Your task to perform on an android device: install app "Fetch Rewards" Image 0: 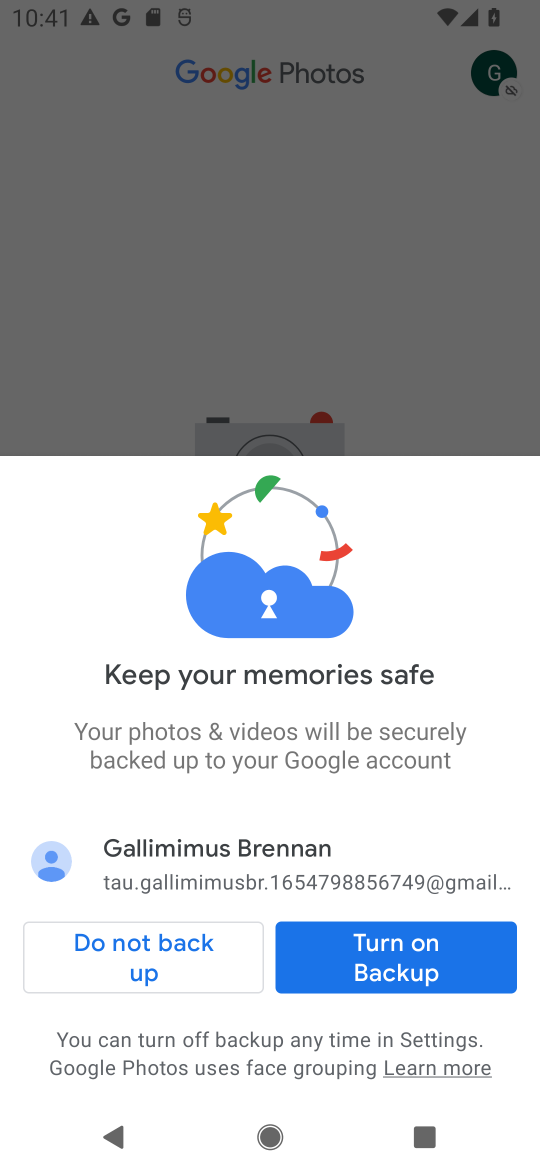
Step 0: press home button
Your task to perform on an android device: install app "Fetch Rewards" Image 1: 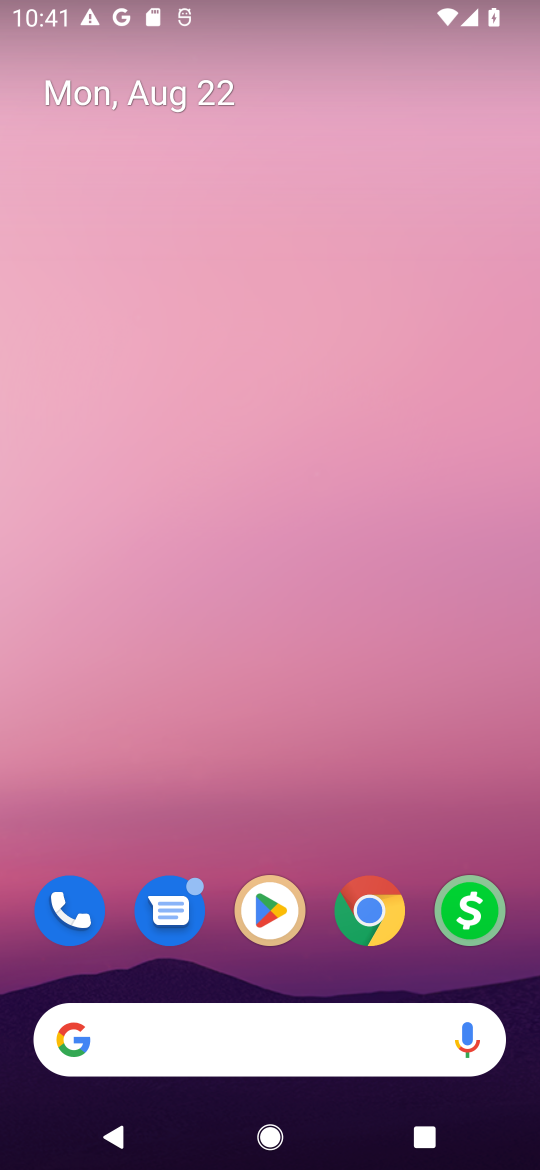
Step 1: click (276, 909)
Your task to perform on an android device: install app "Fetch Rewards" Image 2: 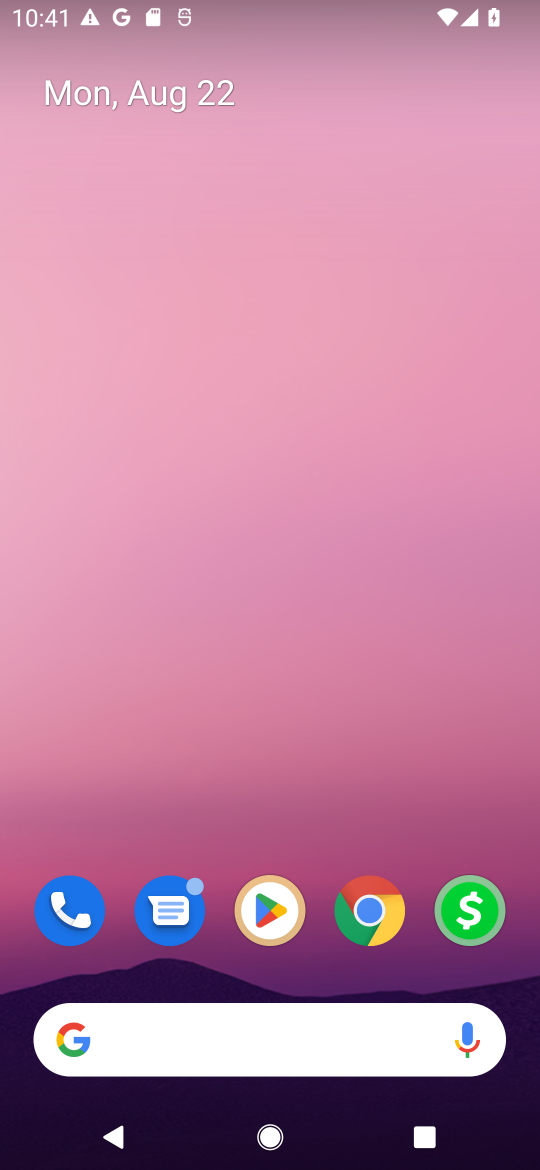
Step 2: click (268, 904)
Your task to perform on an android device: install app "Fetch Rewards" Image 3: 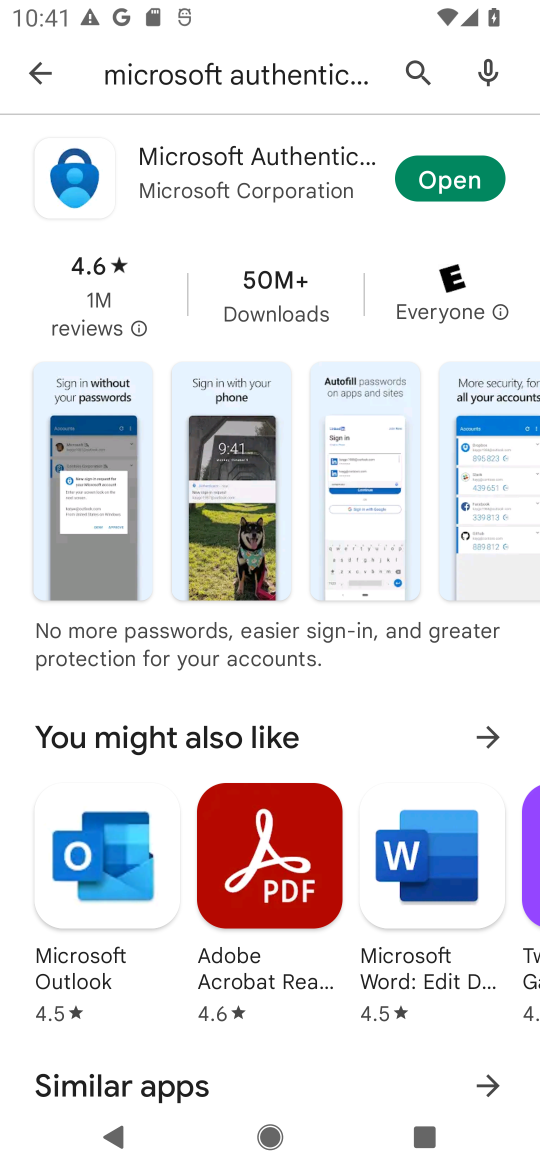
Step 3: click (416, 66)
Your task to perform on an android device: install app "Fetch Rewards" Image 4: 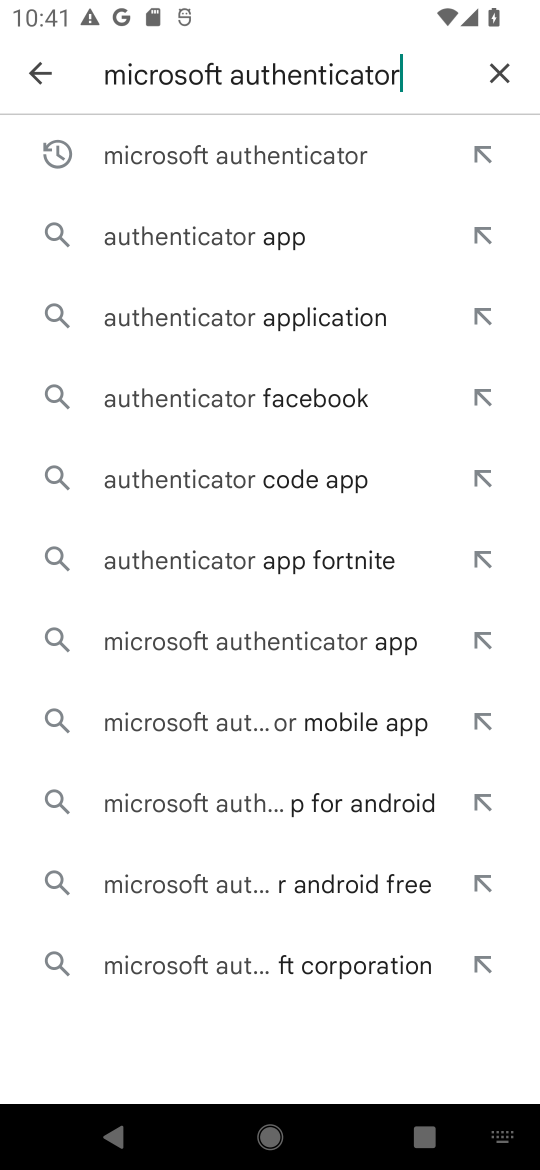
Step 4: click (505, 66)
Your task to perform on an android device: install app "Fetch Rewards" Image 5: 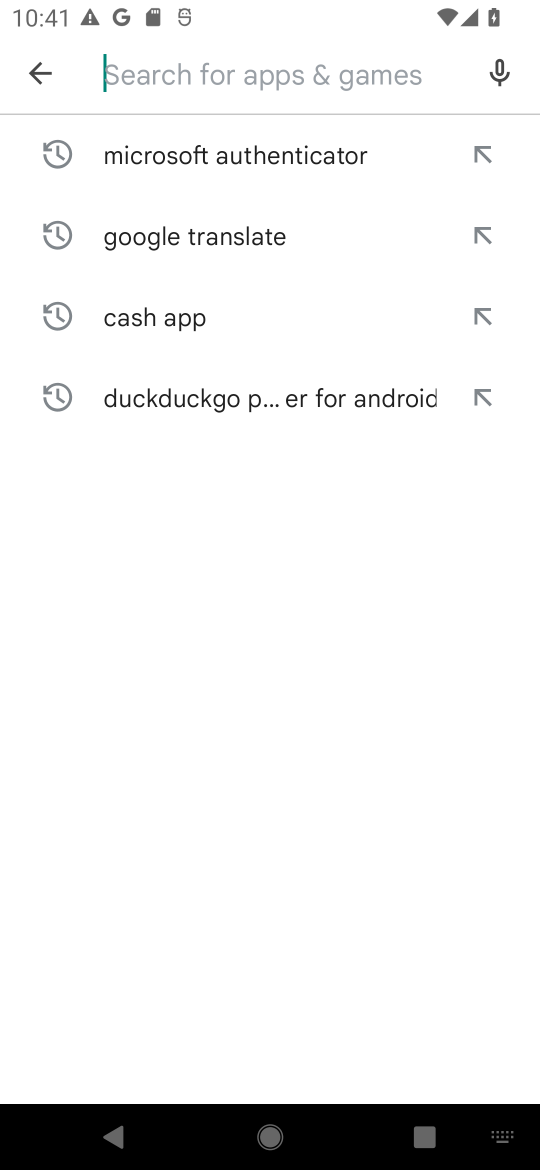
Step 5: type "Fetch Rewards"
Your task to perform on an android device: install app "Fetch Rewards" Image 6: 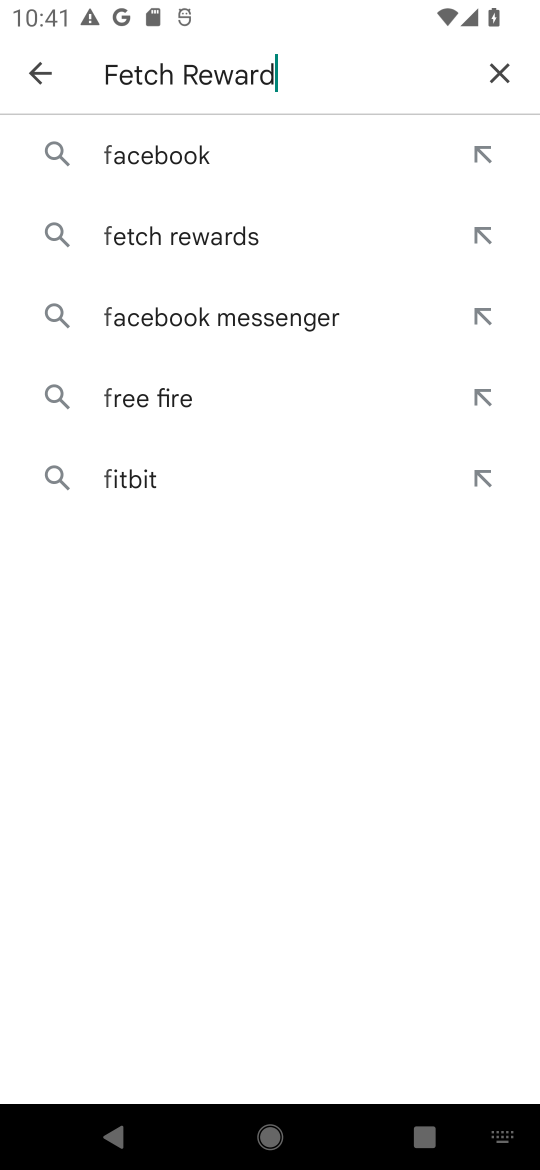
Step 6: type ""
Your task to perform on an android device: install app "Fetch Rewards" Image 7: 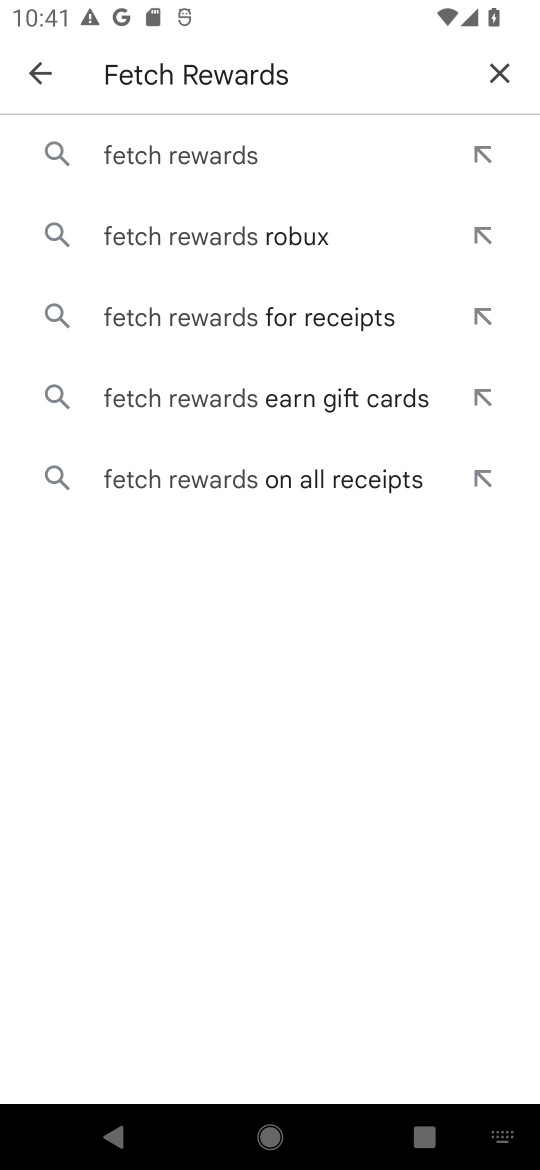
Step 7: click (161, 142)
Your task to perform on an android device: install app "Fetch Rewards" Image 8: 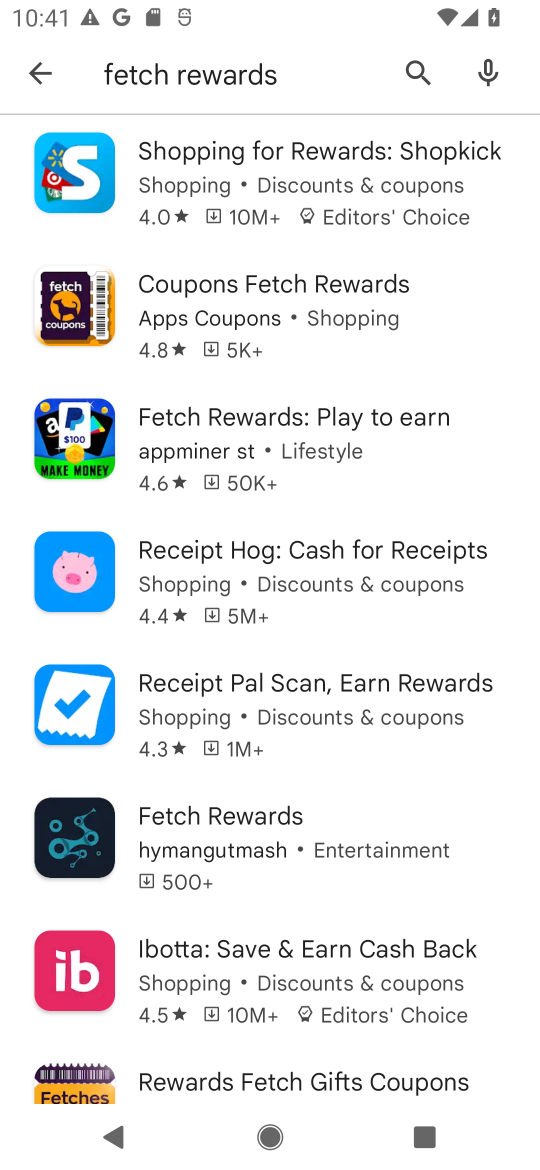
Step 8: task complete